Your task to perform on an android device: open the mobile data screen to see how much data has been used Image 0: 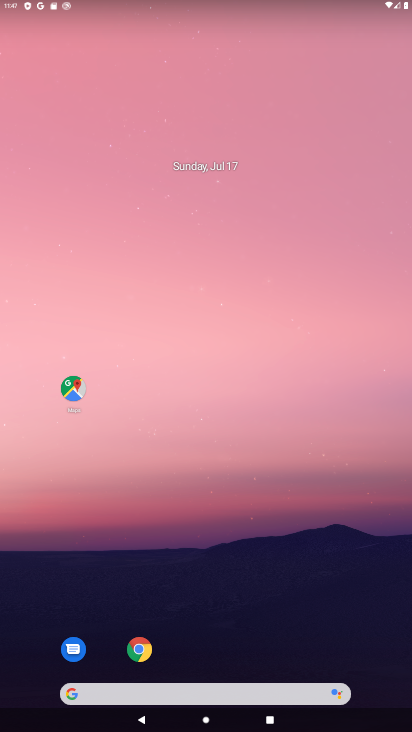
Step 0: drag from (198, 12) to (213, 497)
Your task to perform on an android device: open the mobile data screen to see how much data has been used Image 1: 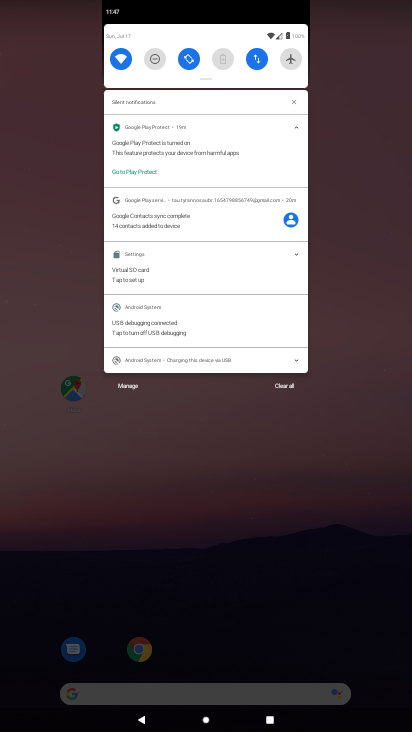
Step 1: click (255, 63)
Your task to perform on an android device: open the mobile data screen to see how much data has been used Image 2: 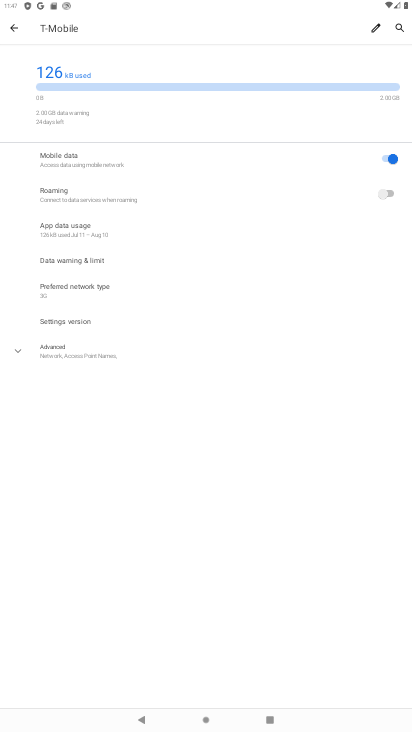
Step 2: task complete